Your task to perform on an android device: Go to location settings Image 0: 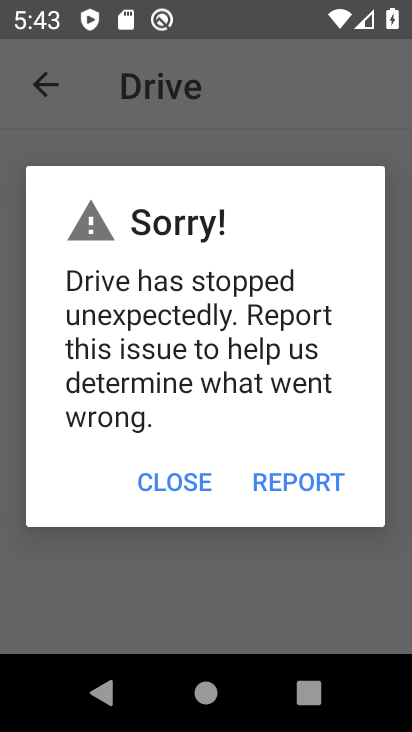
Step 0: press home button
Your task to perform on an android device: Go to location settings Image 1: 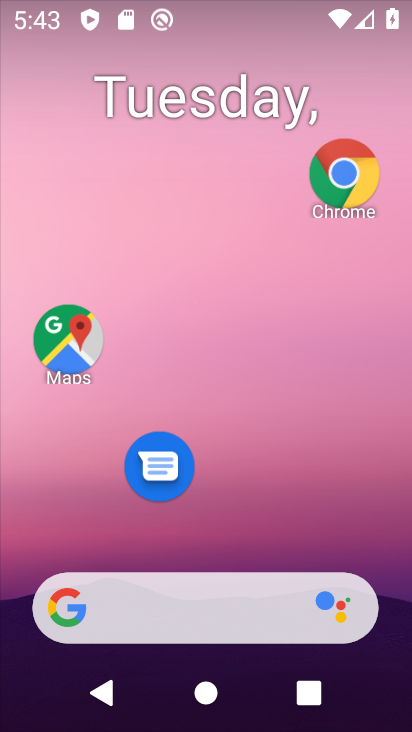
Step 1: click (340, 448)
Your task to perform on an android device: Go to location settings Image 2: 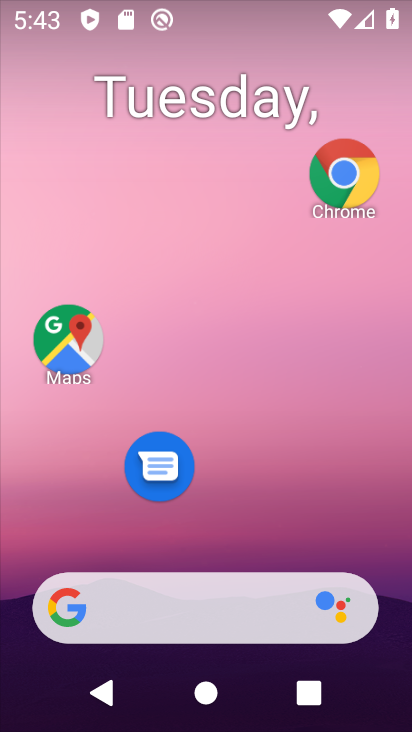
Step 2: click (334, 184)
Your task to perform on an android device: Go to location settings Image 3: 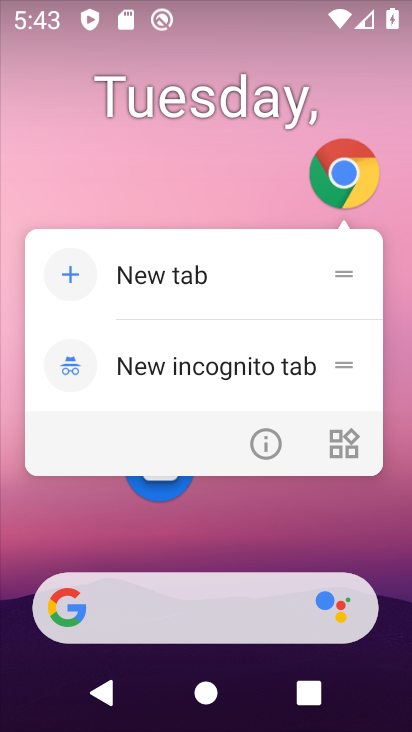
Step 3: click (236, 546)
Your task to perform on an android device: Go to location settings Image 4: 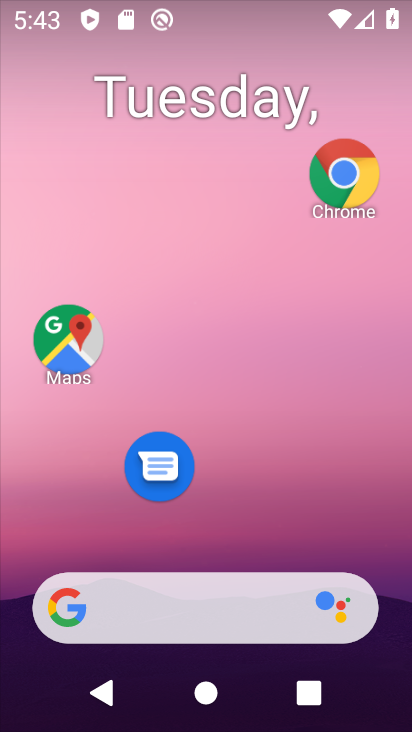
Step 4: drag from (236, 546) to (216, 50)
Your task to perform on an android device: Go to location settings Image 5: 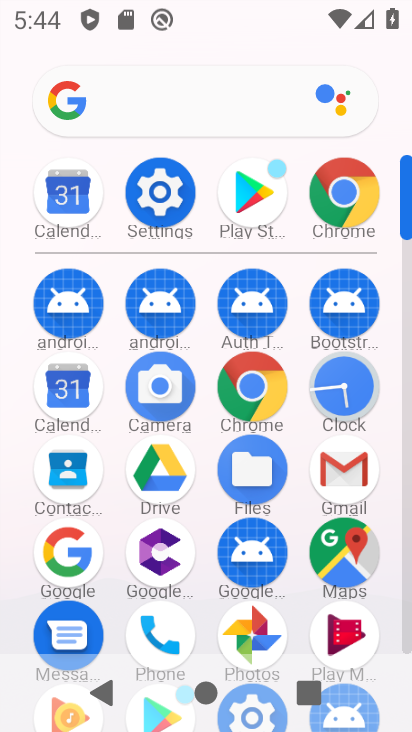
Step 5: drag from (373, 651) to (339, 373)
Your task to perform on an android device: Go to location settings Image 6: 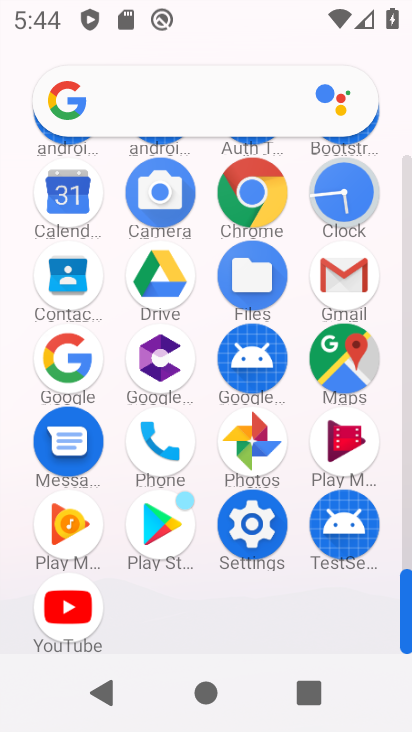
Step 6: click (253, 547)
Your task to perform on an android device: Go to location settings Image 7: 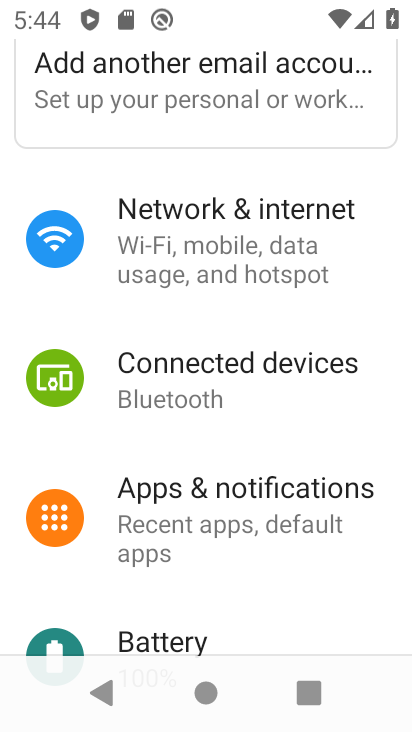
Step 7: drag from (253, 547) to (218, 32)
Your task to perform on an android device: Go to location settings Image 8: 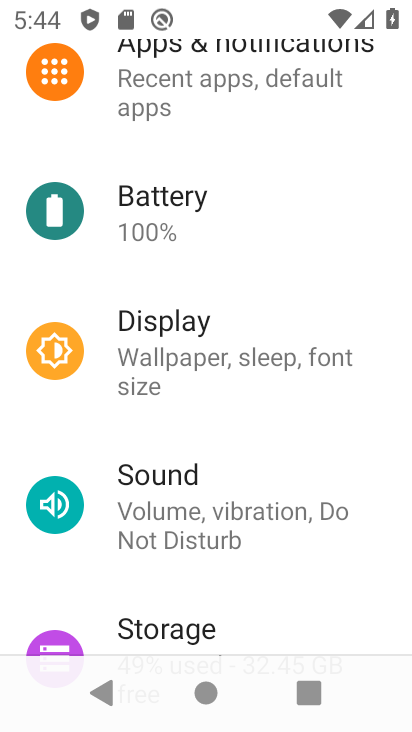
Step 8: drag from (214, 628) to (197, 98)
Your task to perform on an android device: Go to location settings Image 9: 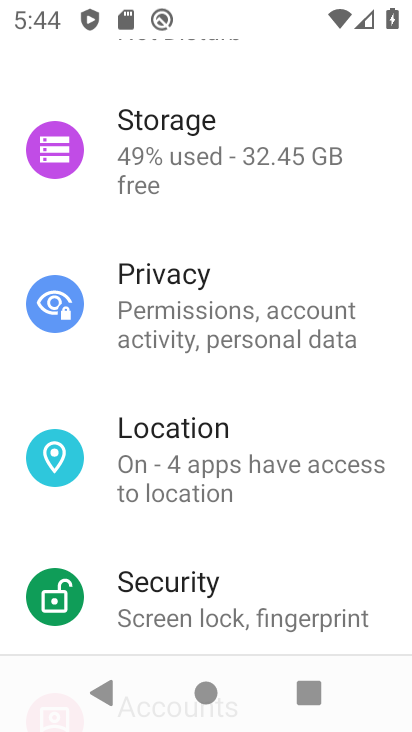
Step 9: click (195, 489)
Your task to perform on an android device: Go to location settings Image 10: 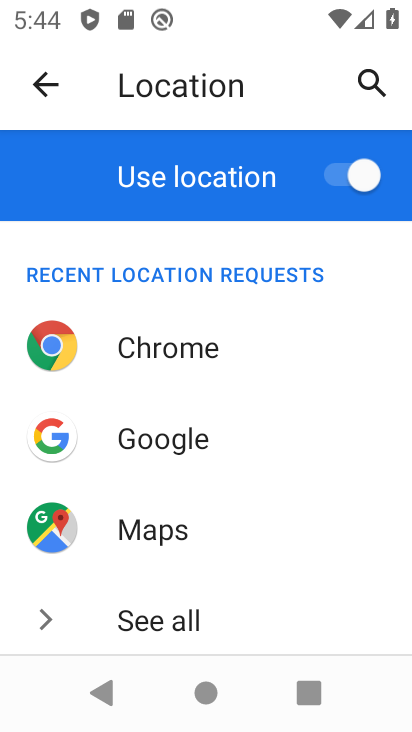
Step 10: task complete